Your task to perform on an android device: Go to CNN.com Image 0: 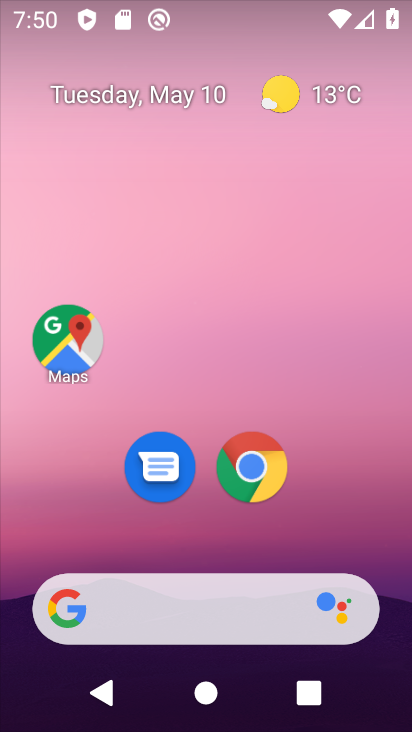
Step 0: click (276, 470)
Your task to perform on an android device: Go to CNN.com Image 1: 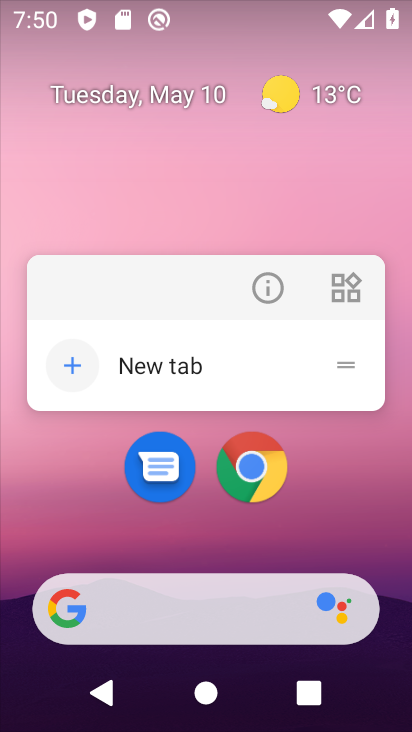
Step 1: click (276, 470)
Your task to perform on an android device: Go to CNN.com Image 2: 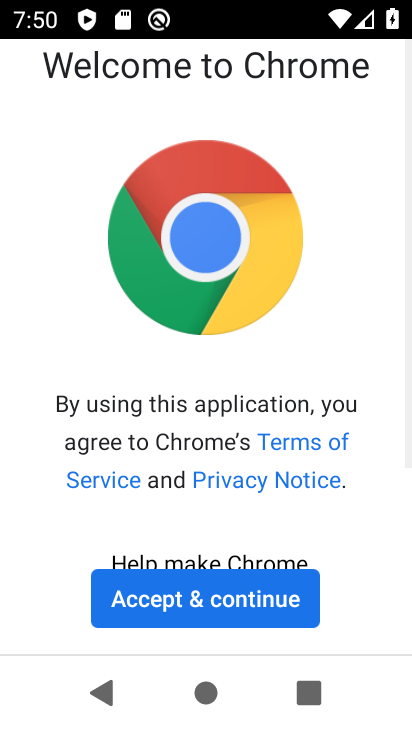
Step 2: click (265, 592)
Your task to perform on an android device: Go to CNN.com Image 3: 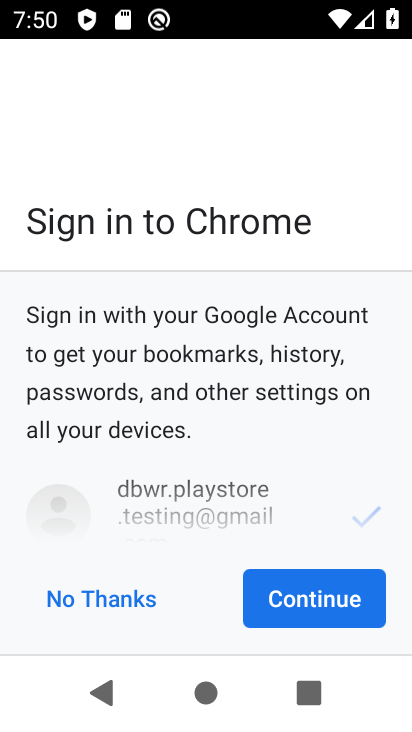
Step 3: click (262, 591)
Your task to perform on an android device: Go to CNN.com Image 4: 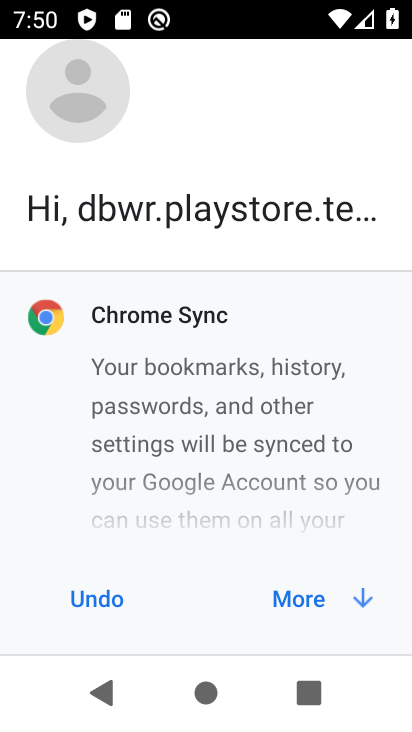
Step 4: click (262, 591)
Your task to perform on an android device: Go to CNN.com Image 5: 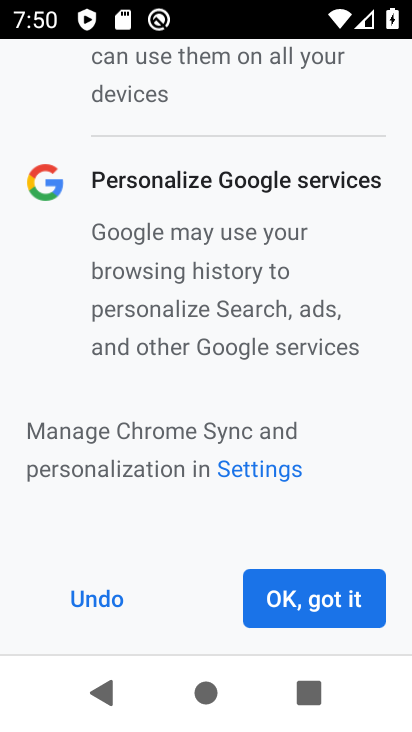
Step 5: click (262, 591)
Your task to perform on an android device: Go to CNN.com Image 6: 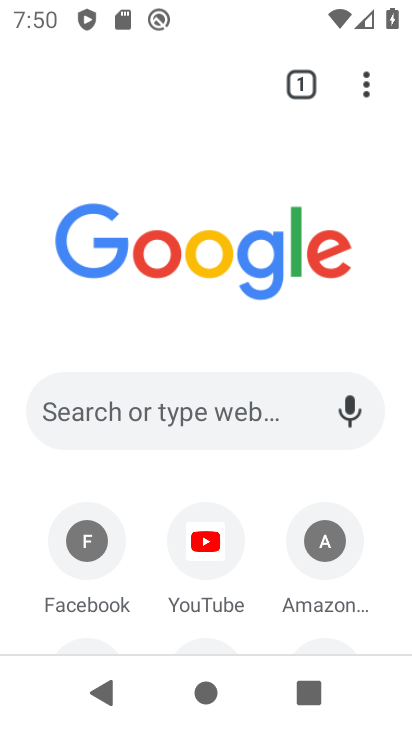
Step 6: drag from (258, 501) to (267, 226)
Your task to perform on an android device: Go to CNN.com Image 7: 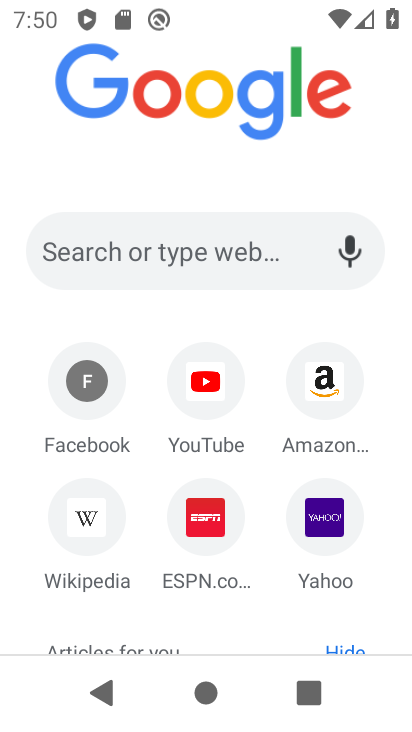
Step 7: click (184, 271)
Your task to perform on an android device: Go to CNN.com Image 8: 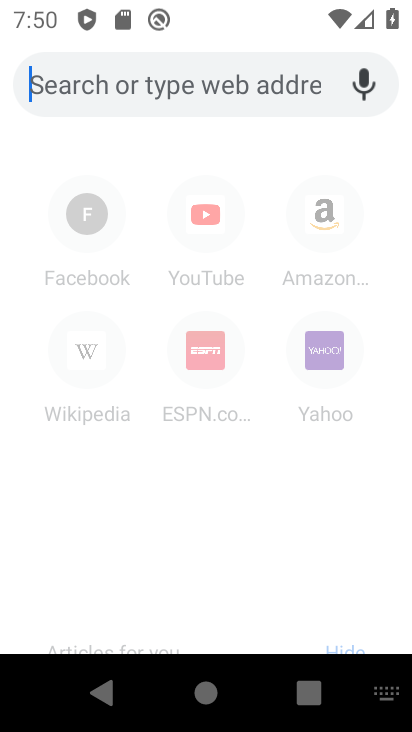
Step 8: type "cnn"
Your task to perform on an android device: Go to CNN.com Image 9: 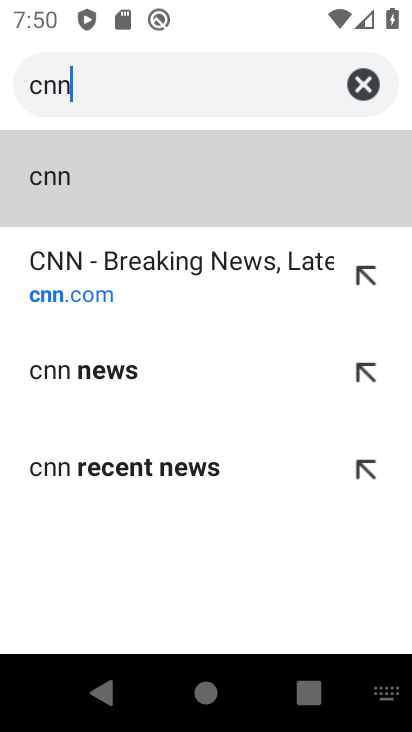
Step 9: click (56, 270)
Your task to perform on an android device: Go to CNN.com Image 10: 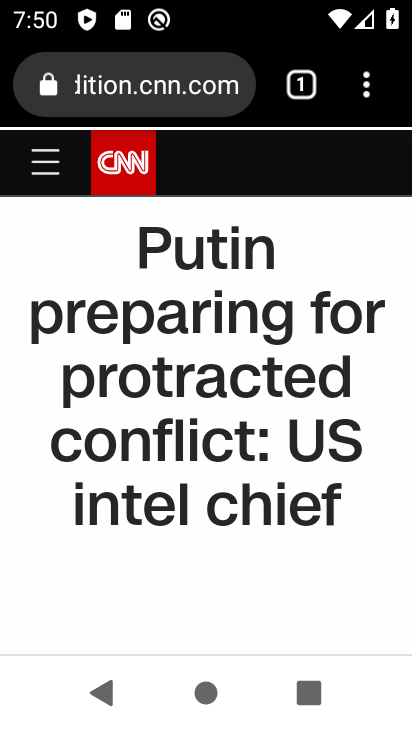
Step 10: task complete